Your task to perform on an android device: turn vacation reply on in the gmail app Image 0: 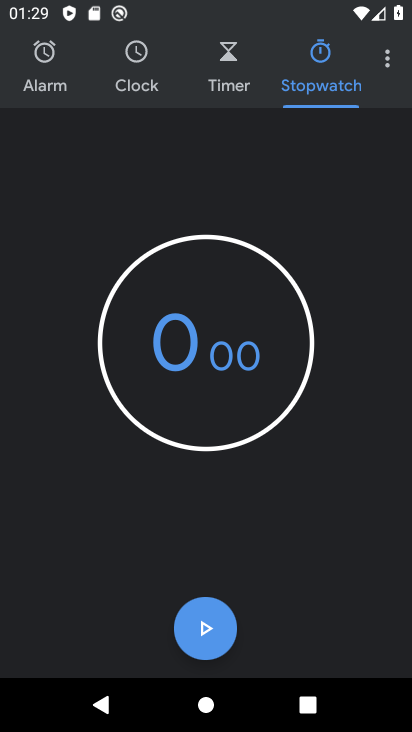
Step 0: drag from (254, 661) to (280, 336)
Your task to perform on an android device: turn vacation reply on in the gmail app Image 1: 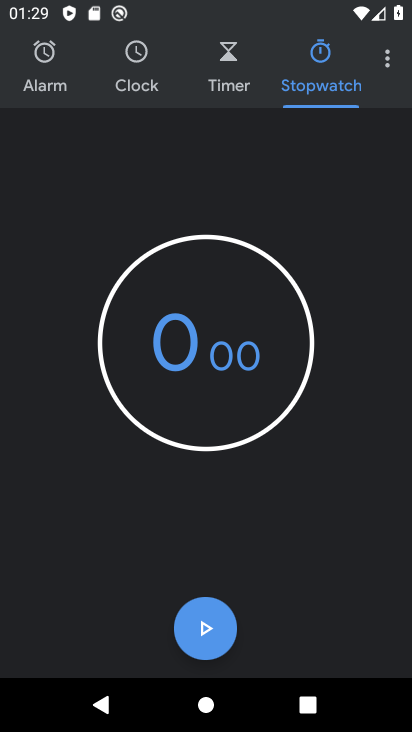
Step 1: click (388, 60)
Your task to perform on an android device: turn vacation reply on in the gmail app Image 2: 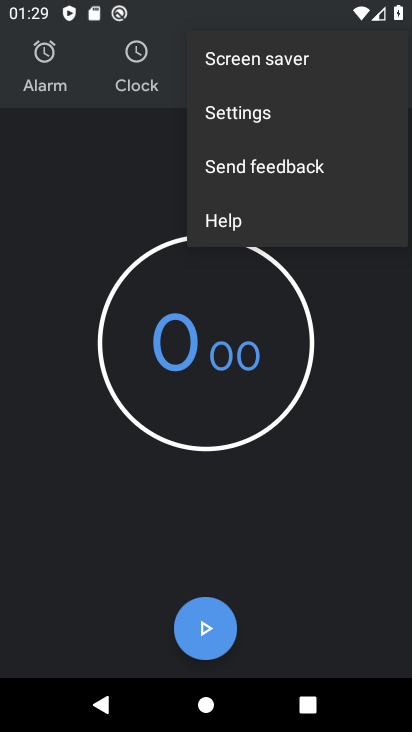
Step 2: click (317, 115)
Your task to perform on an android device: turn vacation reply on in the gmail app Image 3: 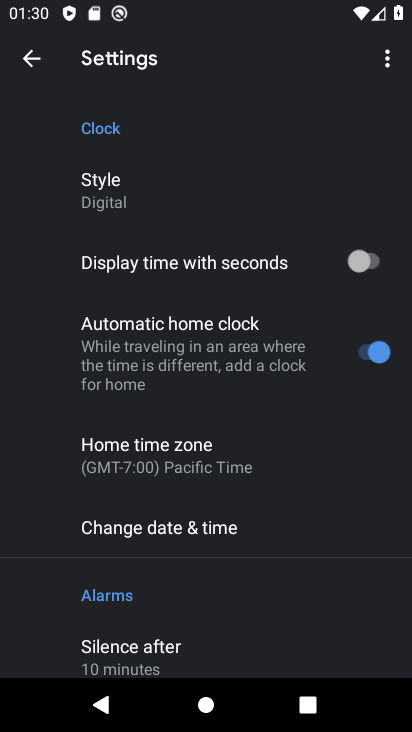
Step 3: drag from (230, 572) to (279, 369)
Your task to perform on an android device: turn vacation reply on in the gmail app Image 4: 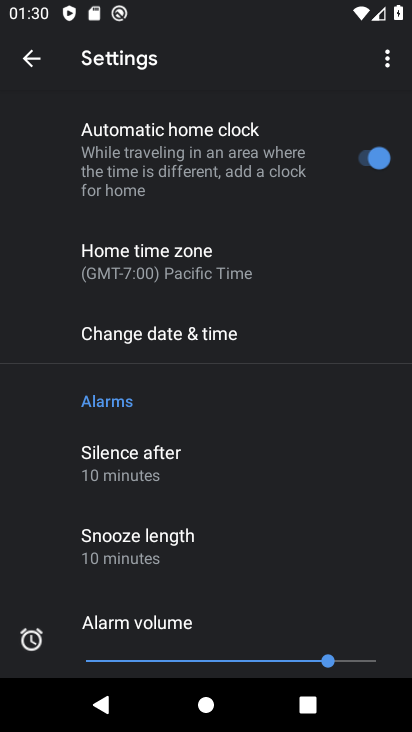
Step 4: drag from (177, 600) to (258, 260)
Your task to perform on an android device: turn vacation reply on in the gmail app Image 5: 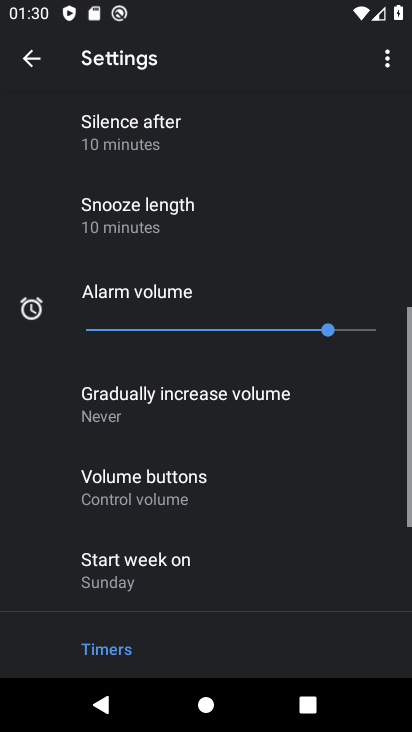
Step 5: drag from (254, 271) to (299, 730)
Your task to perform on an android device: turn vacation reply on in the gmail app Image 6: 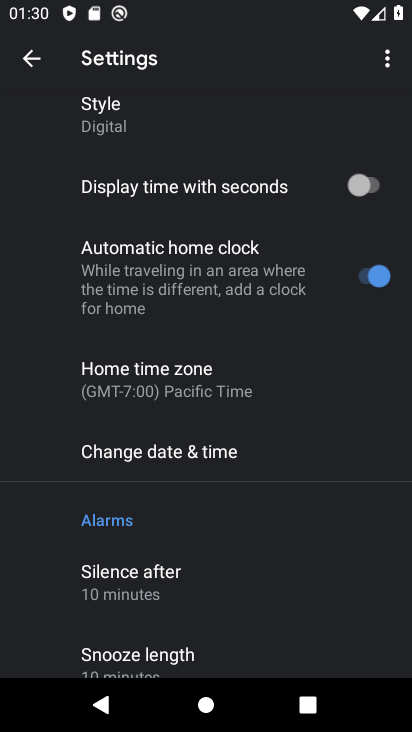
Step 6: drag from (193, 250) to (406, 562)
Your task to perform on an android device: turn vacation reply on in the gmail app Image 7: 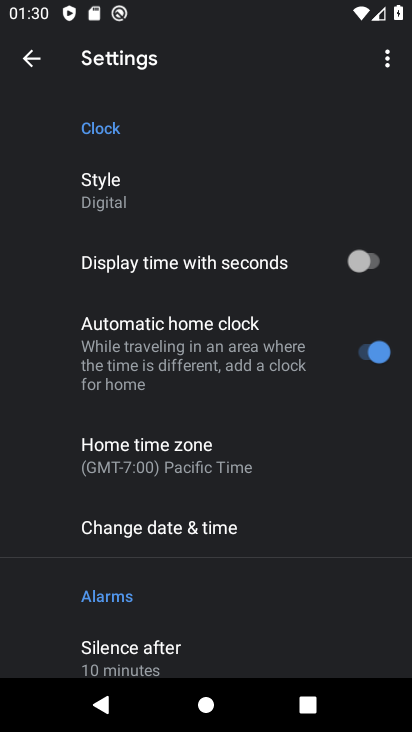
Step 7: press home button
Your task to perform on an android device: turn vacation reply on in the gmail app Image 8: 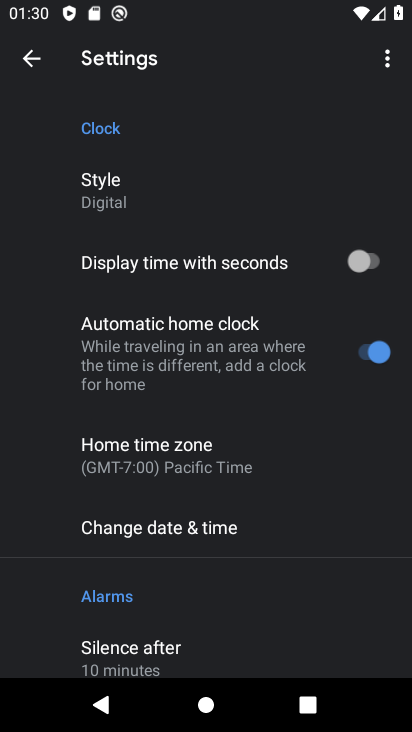
Step 8: click (400, 519)
Your task to perform on an android device: turn vacation reply on in the gmail app Image 9: 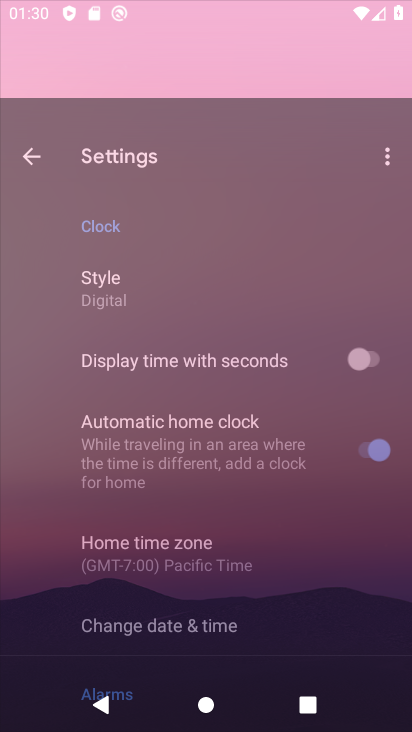
Step 9: drag from (279, 573) to (412, 92)
Your task to perform on an android device: turn vacation reply on in the gmail app Image 10: 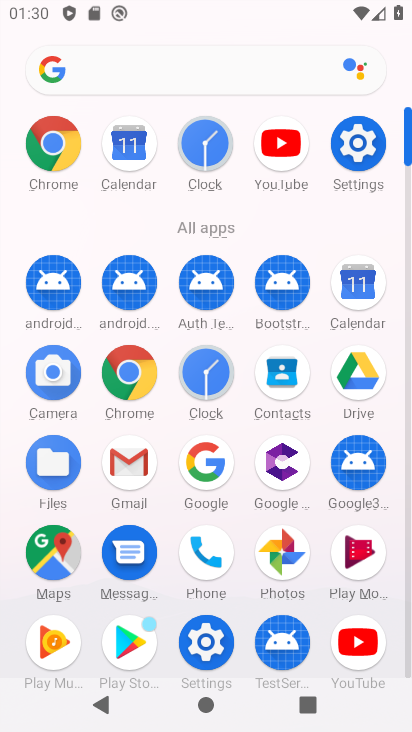
Step 10: click (357, 146)
Your task to perform on an android device: turn vacation reply on in the gmail app Image 11: 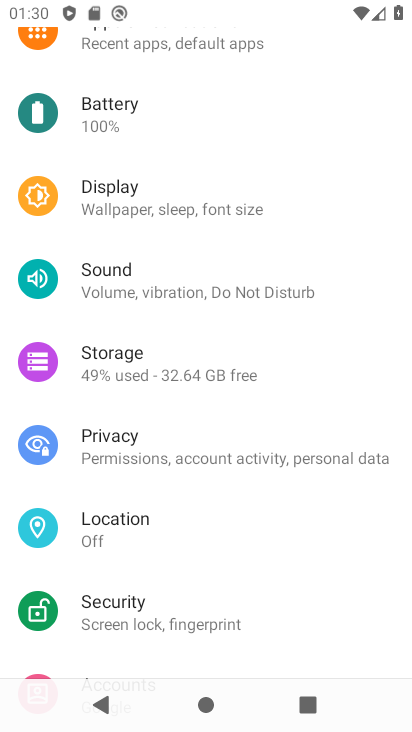
Step 11: press home button
Your task to perform on an android device: turn vacation reply on in the gmail app Image 12: 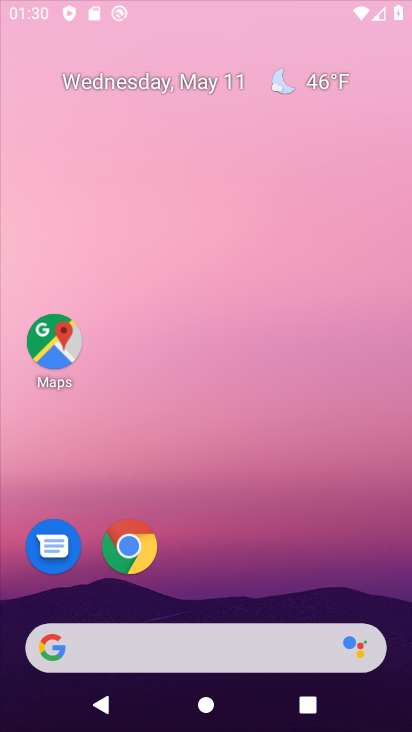
Step 12: drag from (186, 622) to (192, 235)
Your task to perform on an android device: turn vacation reply on in the gmail app Image 13: 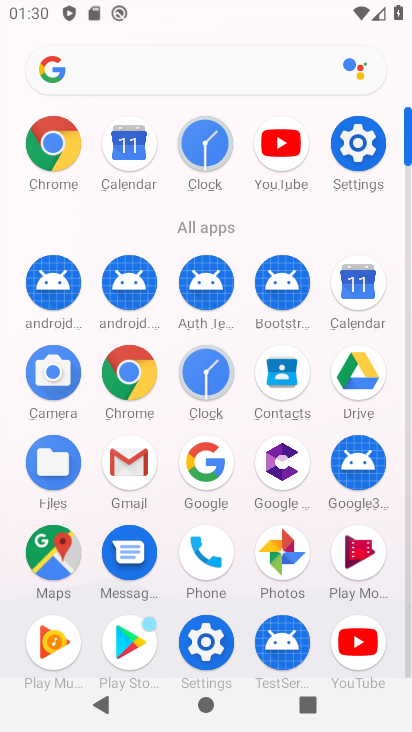
Step 13: click (134, 462)
Your task to perform on an android device: turn vacation reply on in the gmail app Image 14: 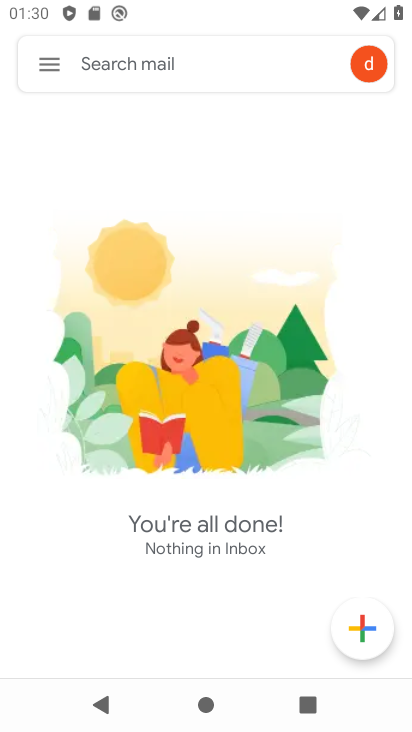
Step 14: click (29, 71)
Your task to perform on an android device: turn vacation reply on in the gmail app Image 15: 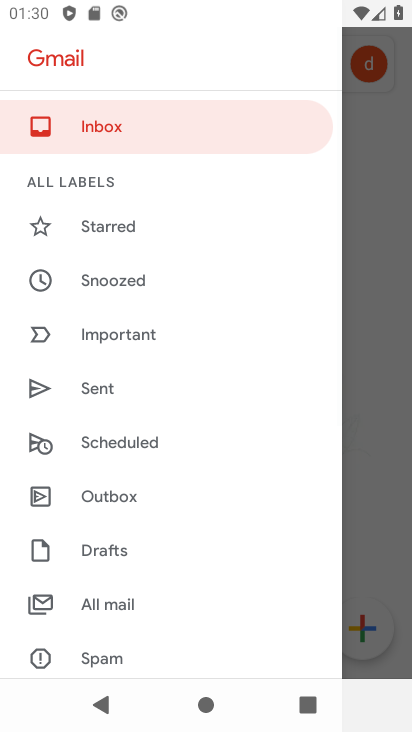
Step 15: drag from (178, 544) to (223, 185)
Your task to perform on an android device: turn vacation reply on in the gmail app Image 16: 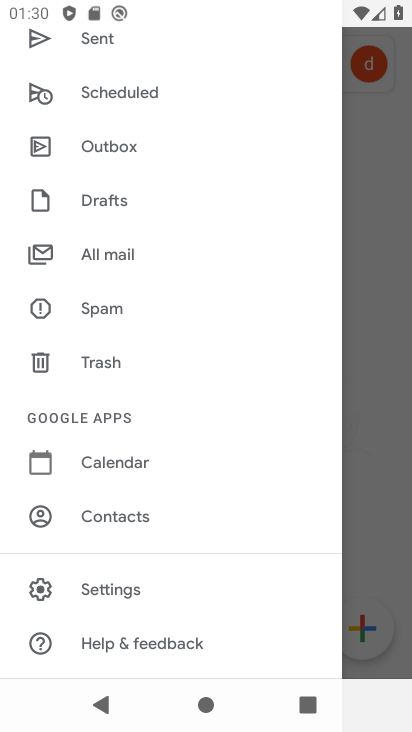
Step 16: click (88, 598)
Your task to perform on an android device: turn vacation reply on in the gmail app Image 17: 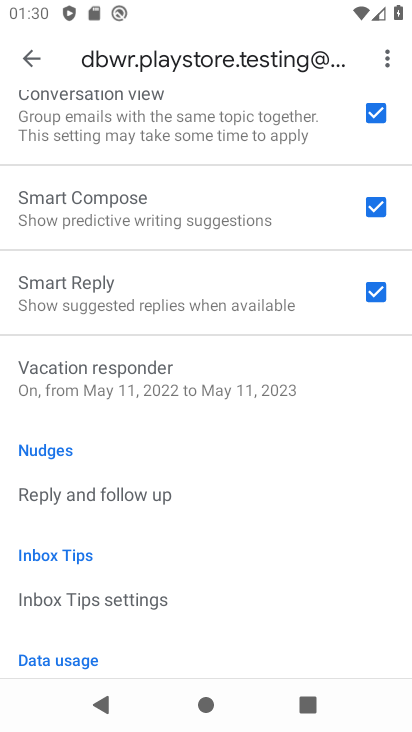
Step 17: drag from (171, 643) to (280, 219)
Your task to perform on an android device: turn vacation reply on in the gmail app Image 18: 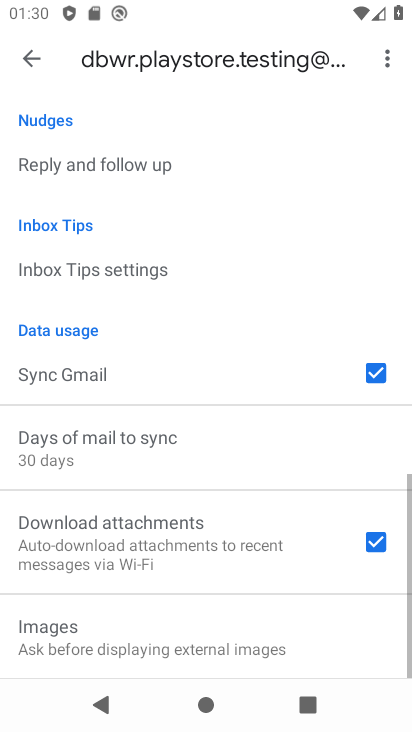
Step 18: drag from (188, 223) to (201, 531)
Your task to perform on an android device: turn vacation reply on in the gmail app Image 19: 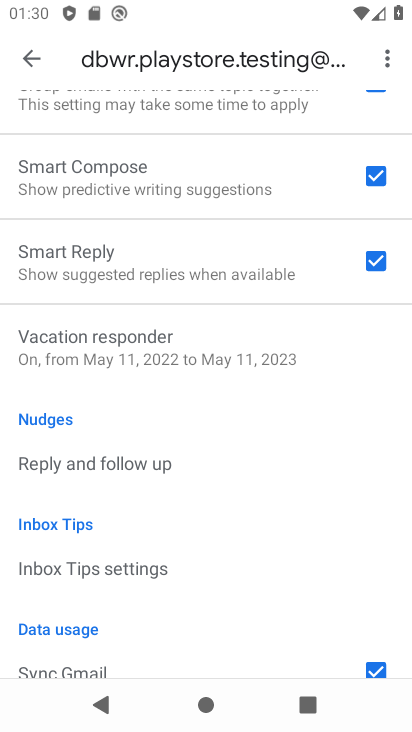
Step 19: click (145, 339)
Your task to perform on an android device: turn vacation reply on in the gmail app Image 20: 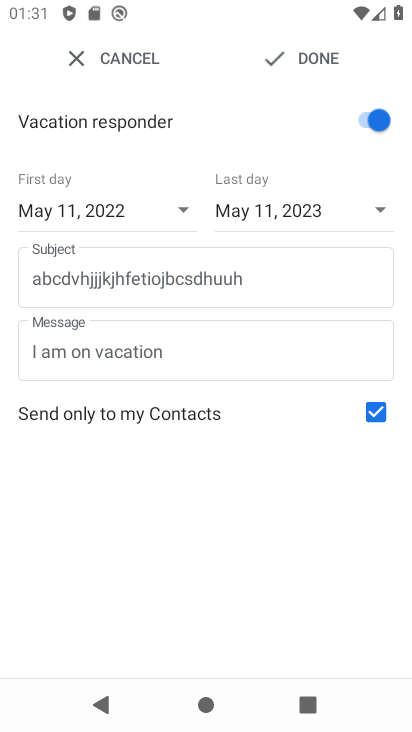
Step 20: click (304, 58)
Your task to perform on an android device: turn vacation reply on in the gmail app Image 21: 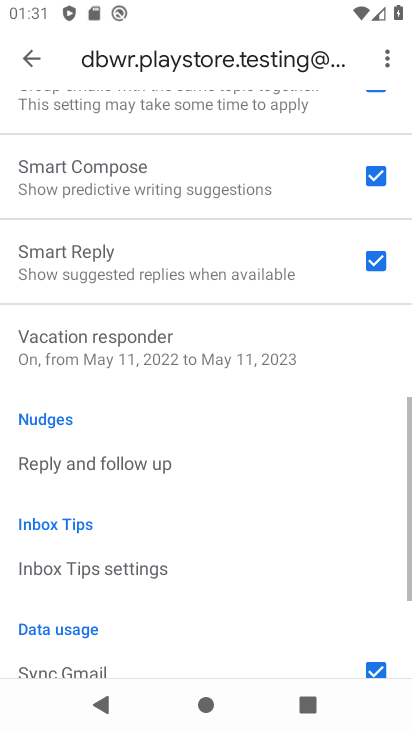
Step 21: task complete